Your task to perform on an android device: turn off airplane mode Image 0: 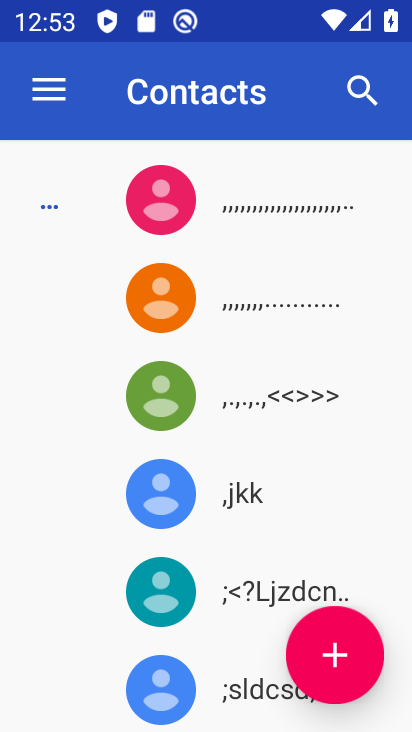
Step 0: press home button
Your task to perform on an android device: turn off airplane mode Image 1: 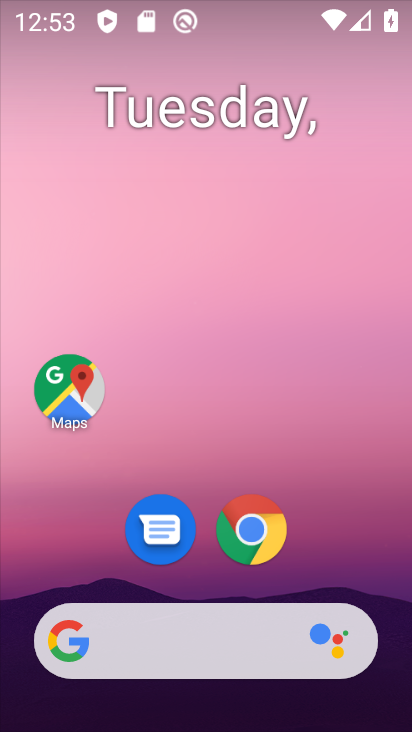
Step 1: drag from (340, 489) to (225, 79)
Your task to perform on an android device: turn off airplane mode Image 2: 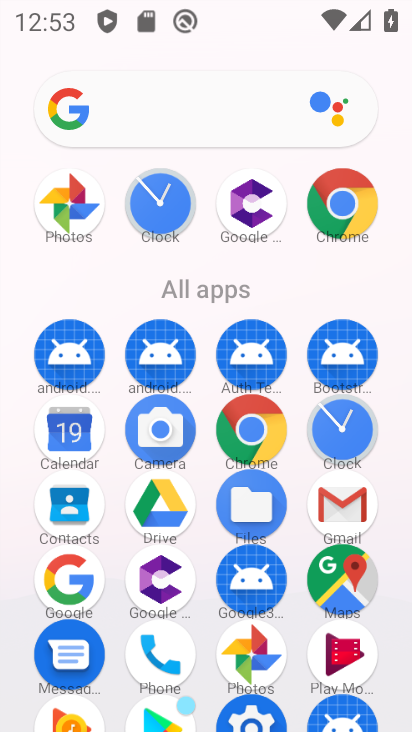
Step 2: click (260, 712)
Your task to perform on an android device: turn off airplane mode Image 3: 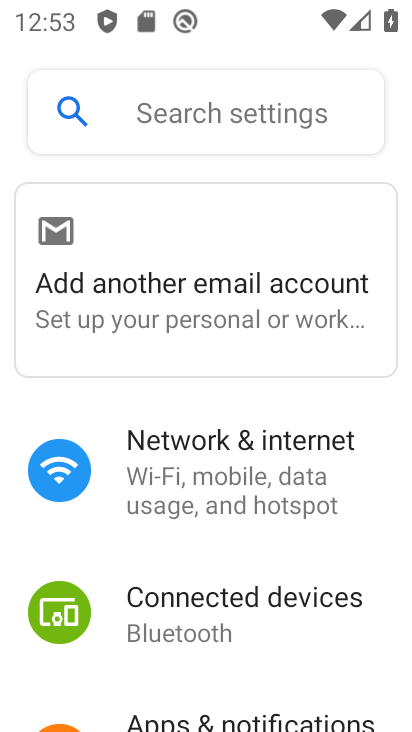
Step 3: click (269, 477)
Your task to perform on an android device: turn off airplane mode Image 4: 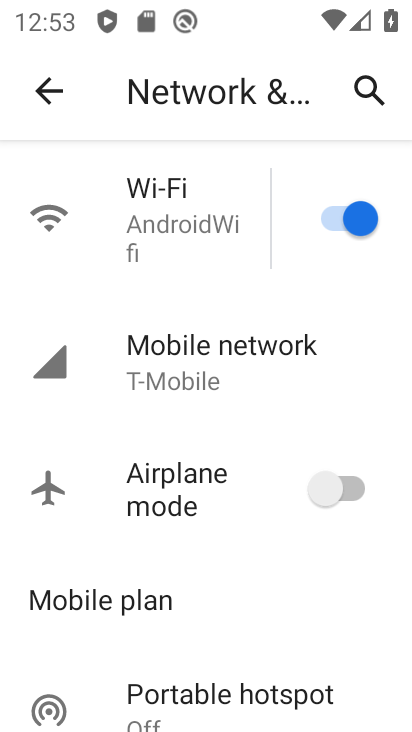
Step 4: task complete